Your task to perform on an android device: Open calendar and show me the fourth week of next month Image 0: 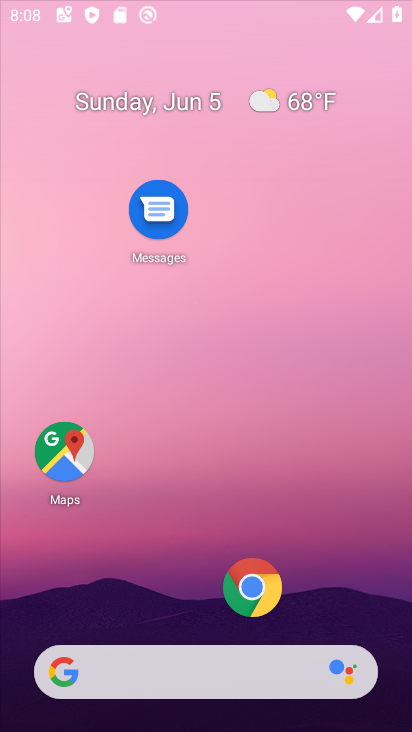
Step 0: press home button
Your task to perform on an android device: Open calendar and show me the fourth week of next month Image 1: 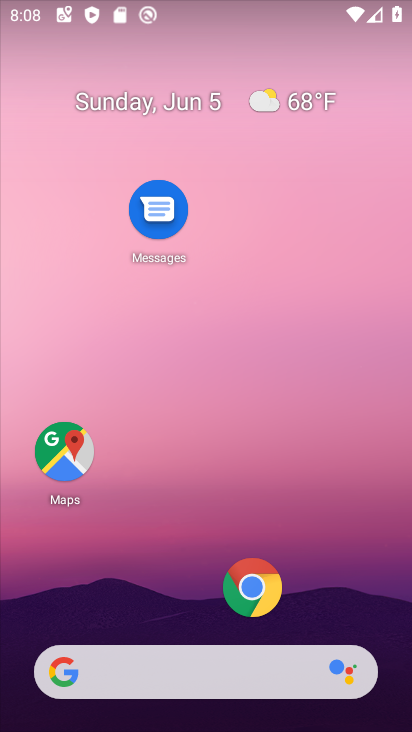
Step 1: press home button
Your task to perform on an android device: Open calendar and show me the fourth week of next month Image 2: 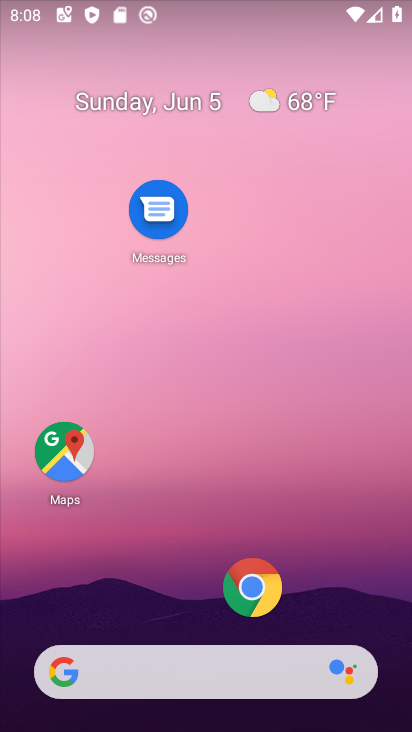
Step 2: drag from (327, 607) to (376, 45)
Your task to perform on an android device: Open calendar and show me the fourth week of next month Image 3: 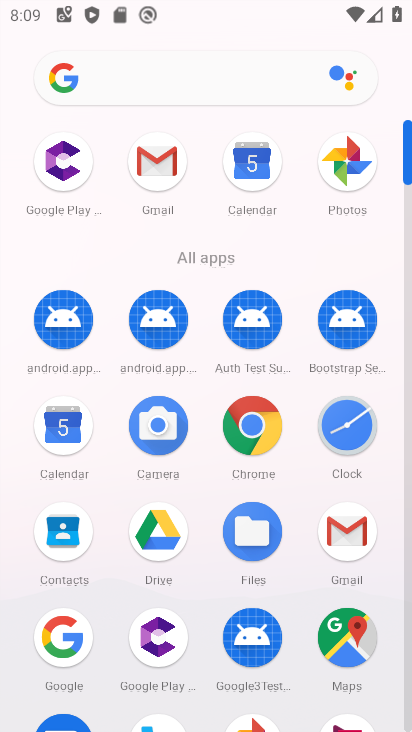
Step 3: click (65, 422)
Your task to perform on an android device: Open calendar and show me the fourth week of next month Image 4: 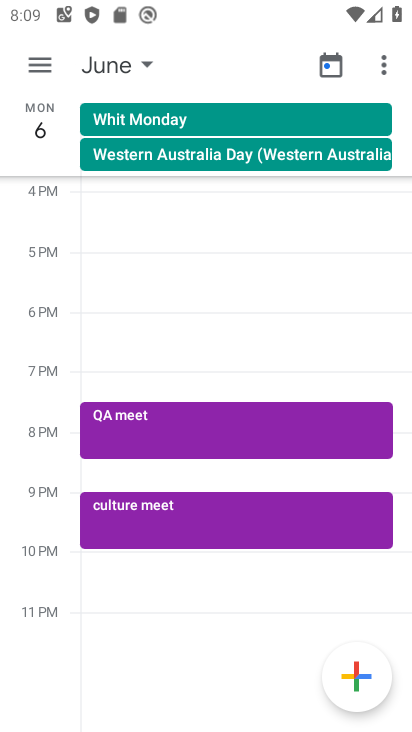
Step 4: click (32, 64)
Your task to perform on an android device: Open calendar and show me the fourth week of next month Image 5: 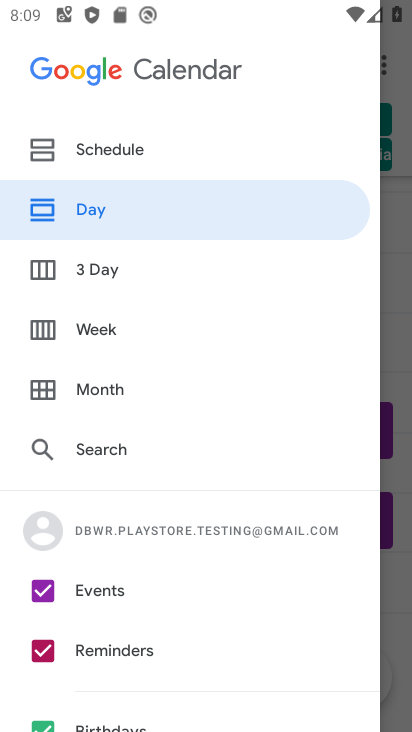
Step 5: click (72, 323)
Your task to perform on an android device: Open calendar and show me the fourth week of next month Image 6: 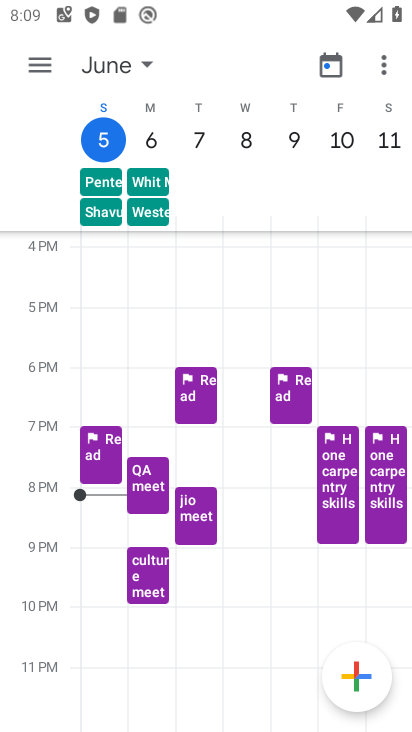
Step 6: click (145, 60)
Your task to perform on an android device: Open calendar and show me the fourth week of next month Image 7: 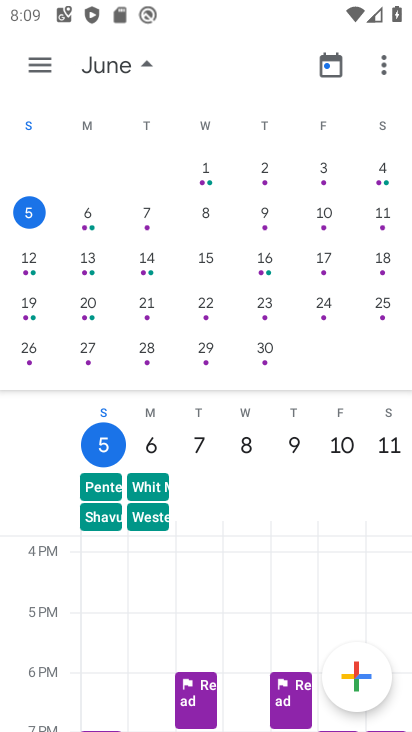
Step 7: drag from (344, 245) to (8, 246)
Your task to perform on an android device: Open calendar and show me the fourth week of next month Image 8: 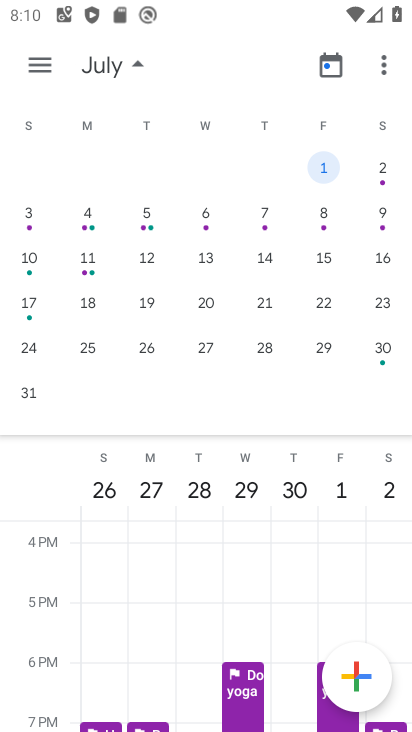
Step 8: click (25, 337)
Your task to perform on an android device: Open calendar and show me the fourth week of next month Image 9: 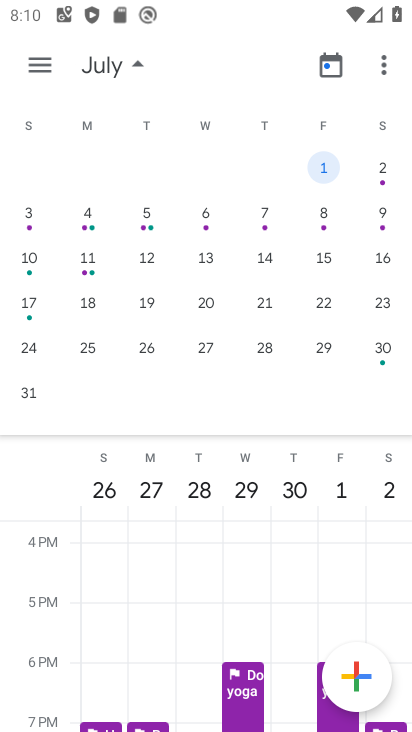
Step 9: click (42, 348)
Your task to perform on an android device: Open calendar and show me the fourth week of next month Image 10: 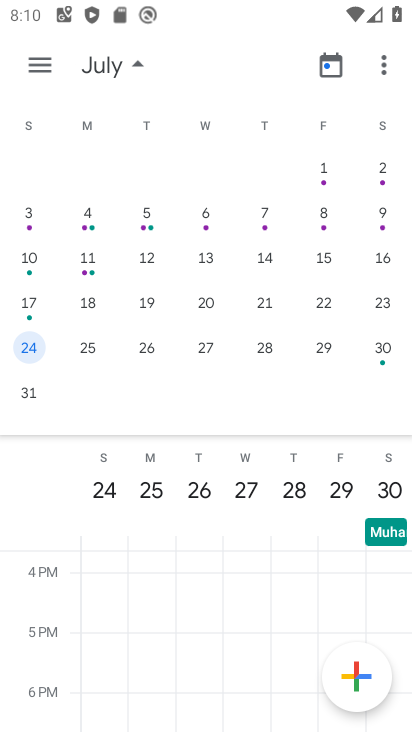
Step 10: click (139, 58)
Your task to perform on an android device: Open calendar and show me the fourth week of next month Image 11: 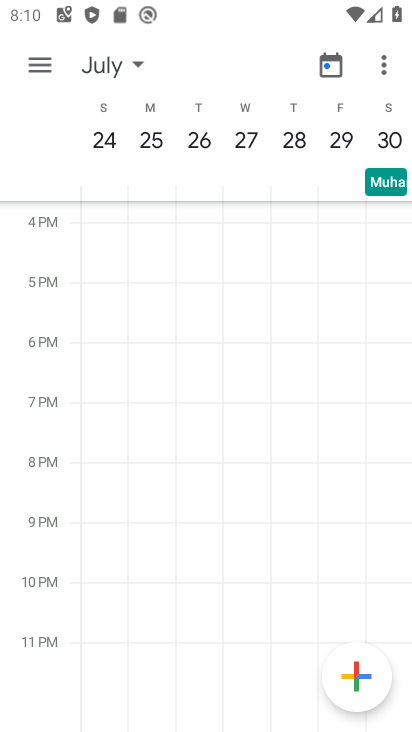
Step 11: click (104, 122)
Your task to perform on an android device: Open calendar and show me the fourth week of next month Image 12: 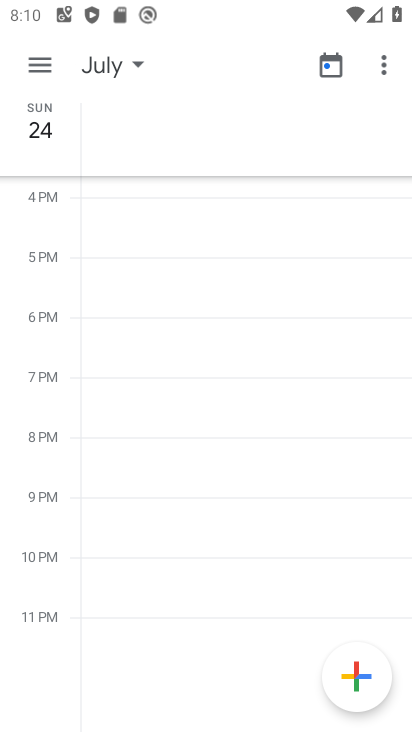
Step 12: click (52, 141)
Your task to perform on an android device: Open calendar and show me the fourth week of next month Image 13: 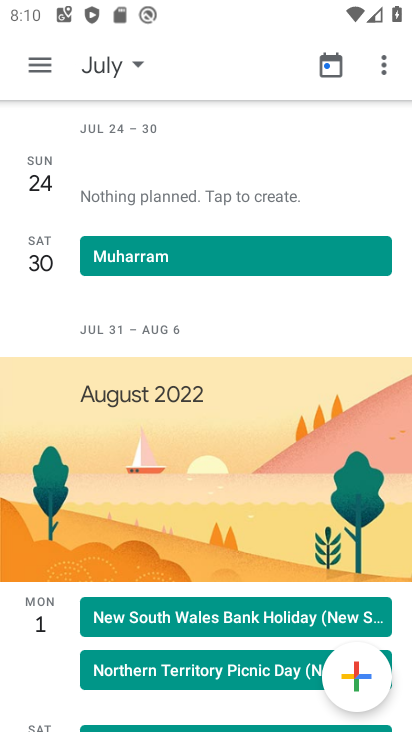
Step 13: task complete